Your task to perform on an android device: see tabs open on other devices in the chrome app Image 0: 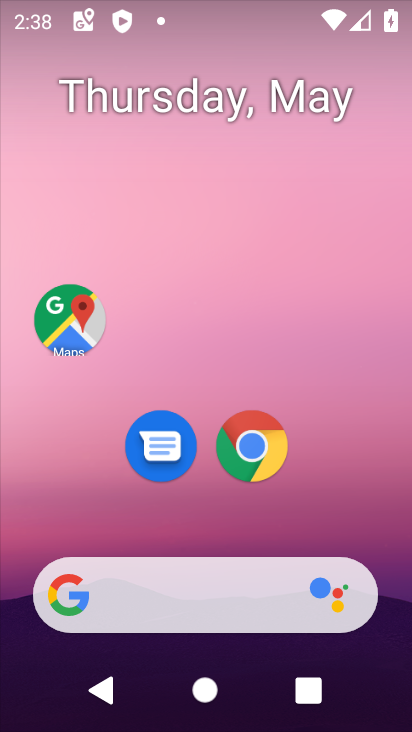
Step 0: click (246, 444)
Your task to perform on an android device: see tabs open on other devices in the chrome app Image 1: 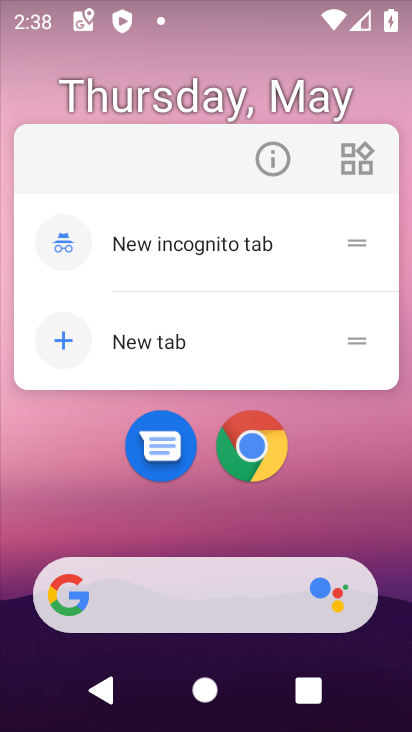
Step 1: click (243, 439)
Your task to perform on an android device: see tabs open on other devices in the chrome app Image 2: 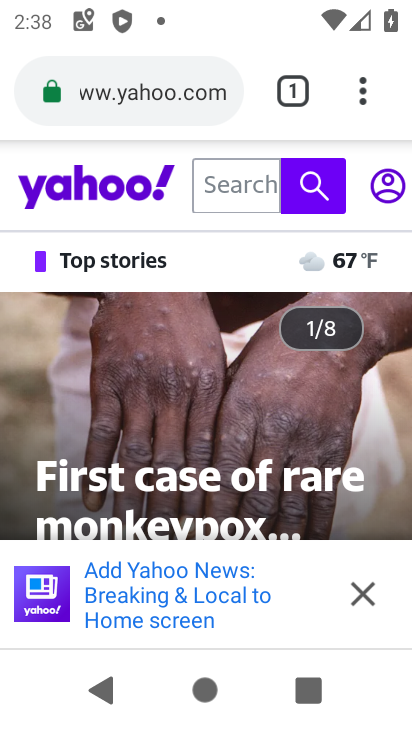
Step 2: click (368, 86)
Your task to perform on an android device: see tabs open on other devices in the chrome app Image 3: 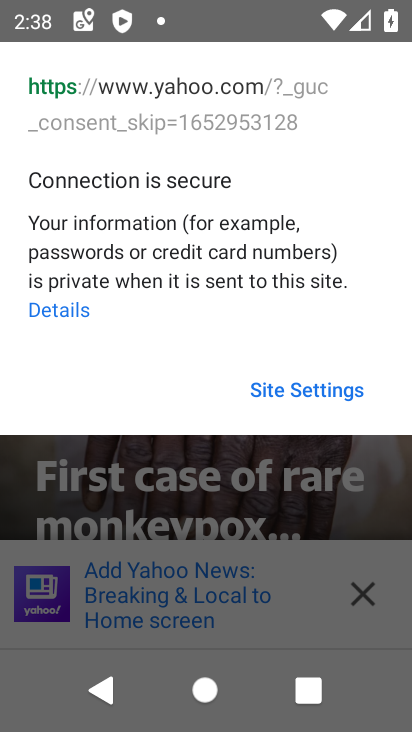
Step 3: click (277, 479)
Your task to perform on an android device: see tabs open on other devices in the chrome app Image 4: 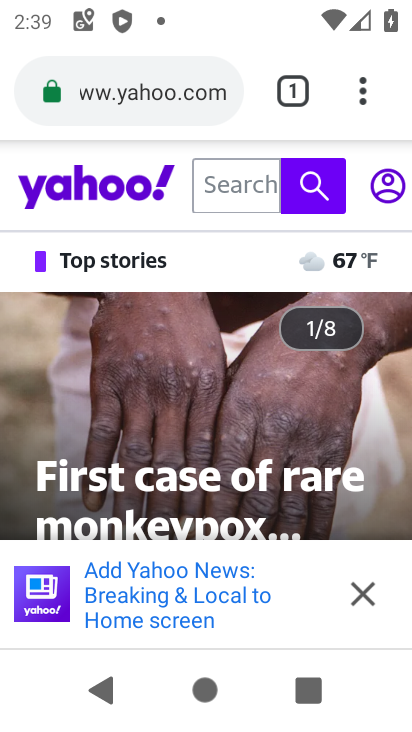
Step 4: click (363, 91)
Your task to perform on an android device: see tabs open on other devices in the chrome app Image 5: 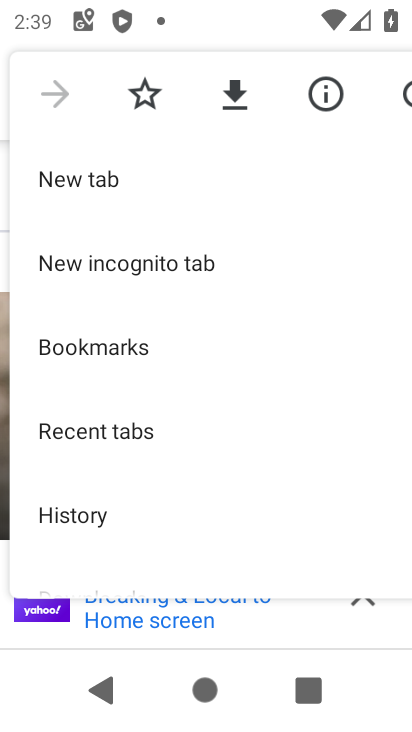
Step 5: click (130, 422)
Your task to perform on an android device: see tabs open on other devices in the chrome app Image 6: 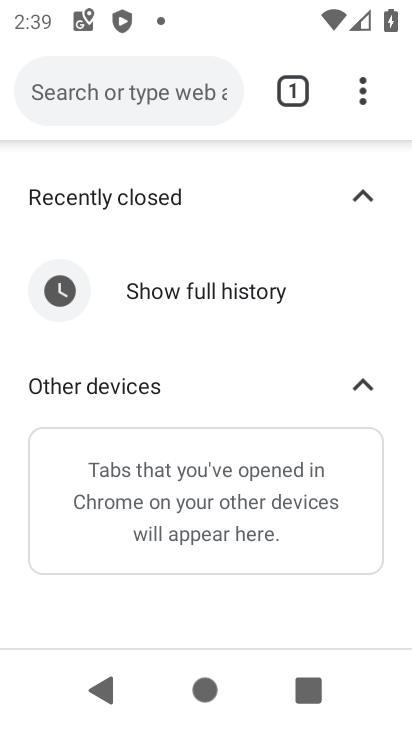
Step 6: task complete